Your task to perform on an android device: read, delete, or share a saved page in the chrome app Image 0: 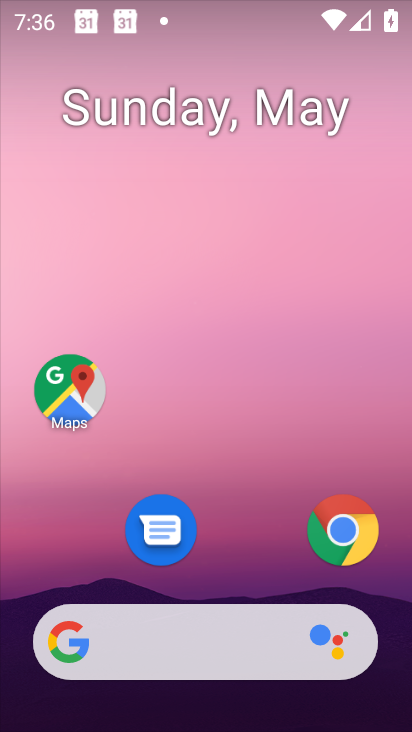
Step 0: click (355, 540)
Your task to perform on an android device: read, delete, or share a saved page in the chrome app Image 1: 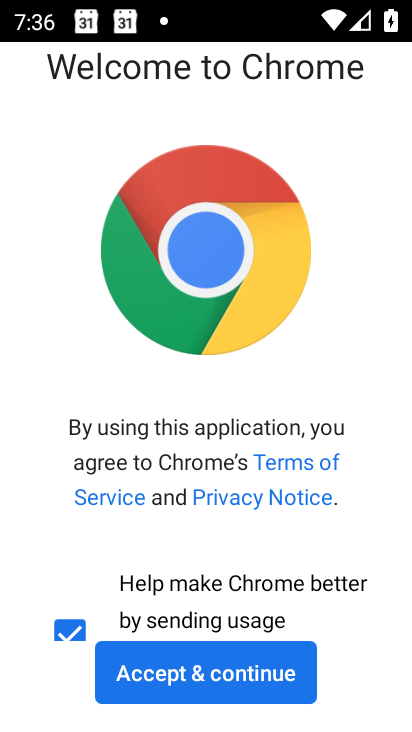
Step 1: click (196, 656)
Your task to perform on an android device: read, delete, or share a saved page in the chrome app Image 2: 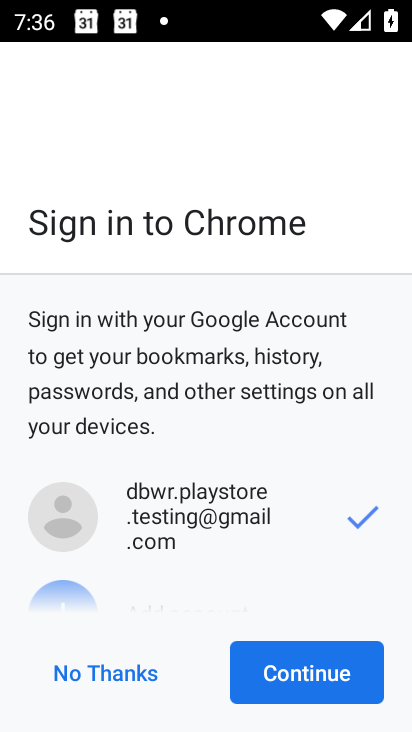
Step 2: click (260, 670)
Your task to perform on an android device: read, delete, or share a saved page in the chrome app Image 3: 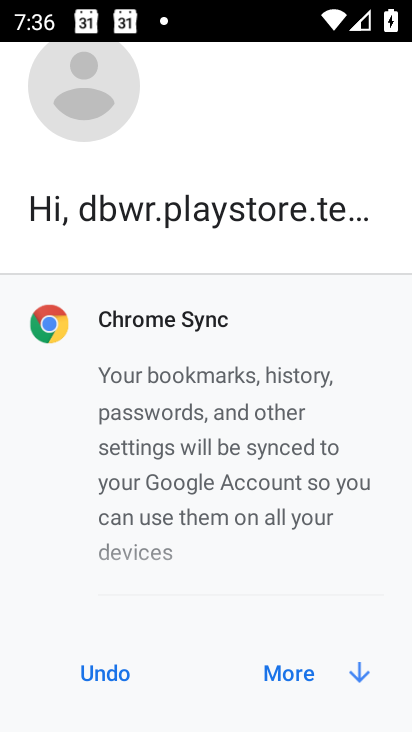
Step 3: click (301, 662)
Your task to perform on an android device: read, delete, or share a saved page in the chrome app Image 4: 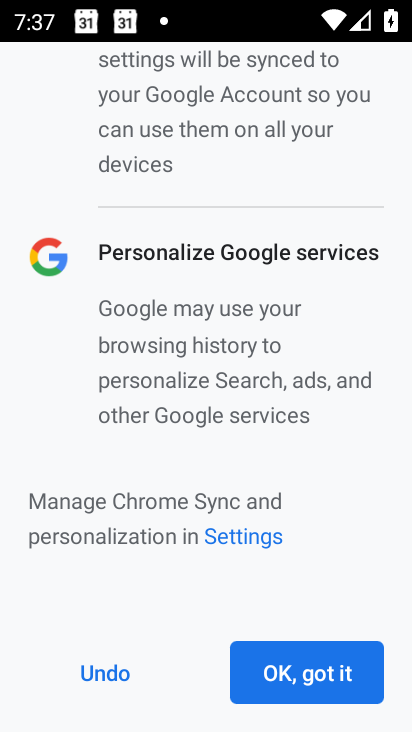
Step 4: click (292, 645)
Your task to perform on an android device: read, delete, or share a saved page in the chrome app Image 5: 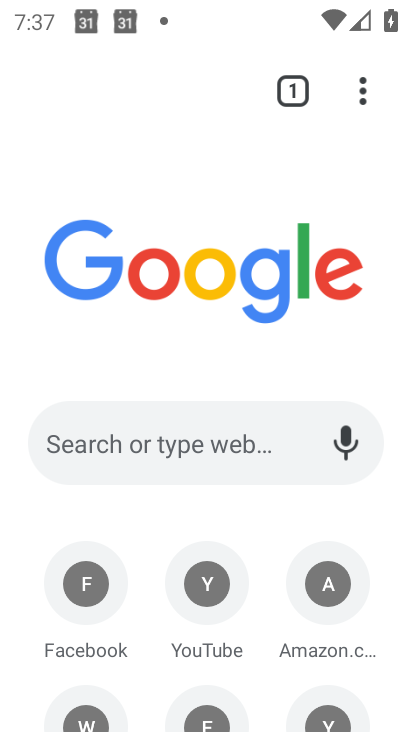
Step 5: click (365, 105)
Your task to perform on an android device: read, delete, or share a saved page in the chrome app Image 6: 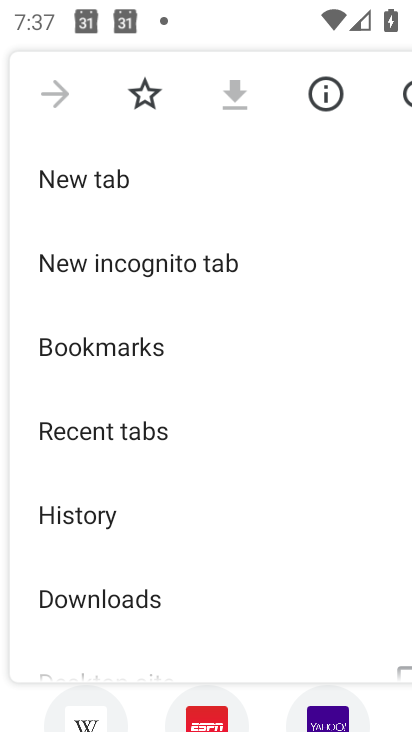
Step 6: click (109, 573)
Your task to perform on an android device: read, delete, or share a saved page in the chrome app Image 7: 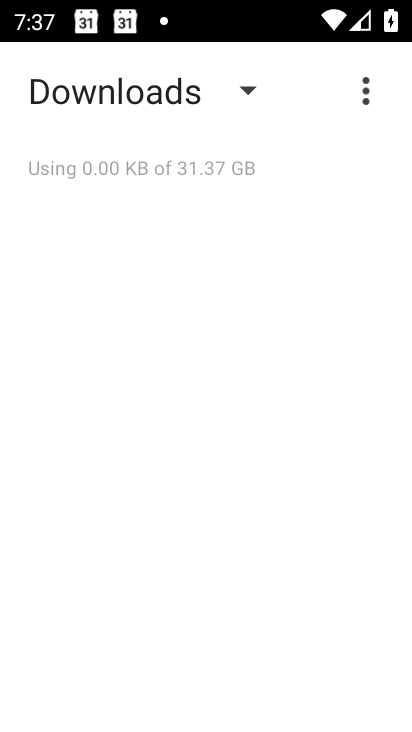
Step 7: task complete